Your task to perform on an android device: What's the weather going to be tomorrow? Image 0: 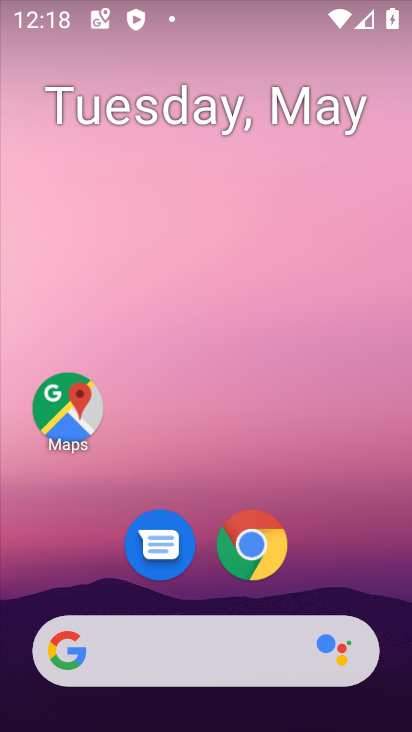
Step 0: click (150, 661)
Your task to perform on an android device: What's the weather going to be tomorrow? Image 1: 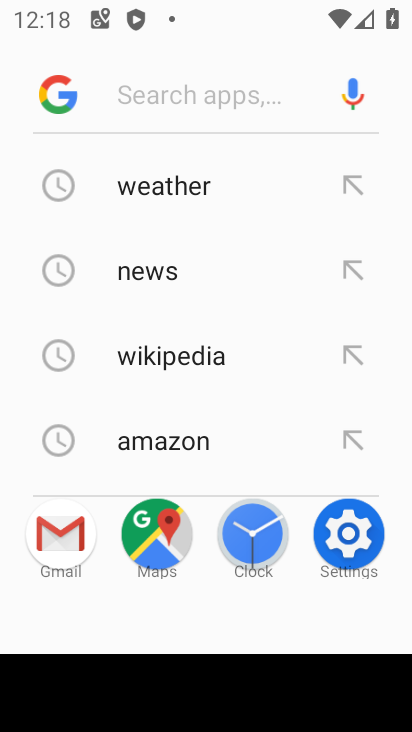
Step 1: click (194, 202)
Your task to perform on an android device: What's the weather going to be tomorrow? Image 2: 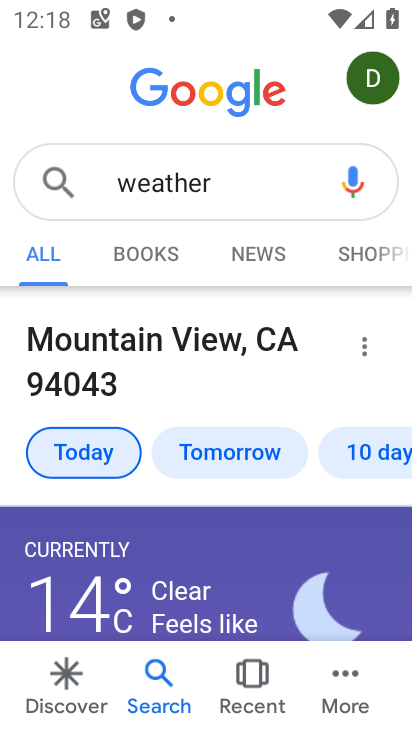
Step 2: click (204, 443)
Your task to perform on an android device: What's the weather going to be tomorrow? Image 3: 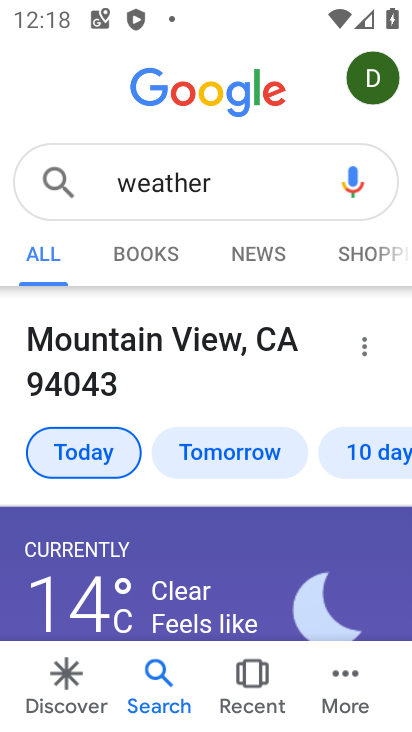
Step 3: click (204, 443)
Your task to perform on an android device: What's the weather going to be tomorrow? Image 4: 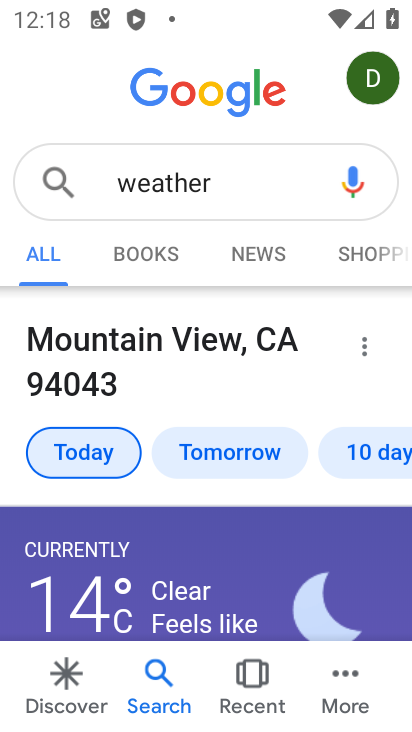
Step 4: click (263, 451)
Your task to perform on an android device: What's the weather going to be tomorrow? Image 5: 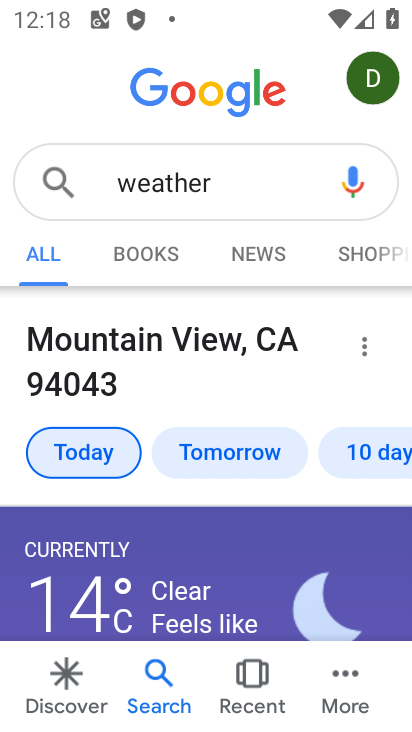
Step 5: click (253, 473)
Your task to perform on an android device: What's the weather going to be tomorrow? Image 6: 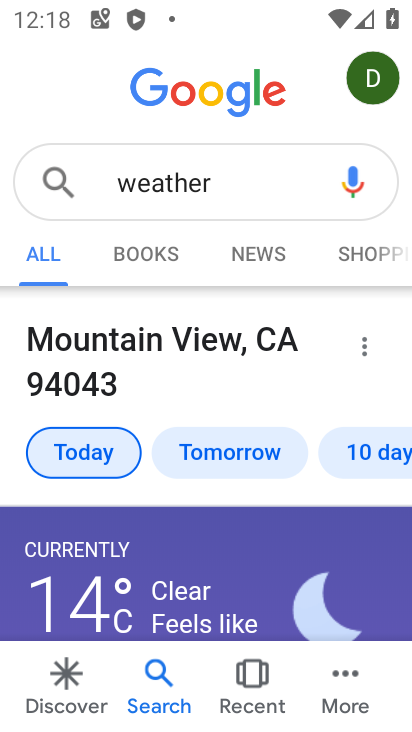
Step 6: click (253, 473)
Your task to perform on an android device: What's the weather going to be tomorrow? Image 7: 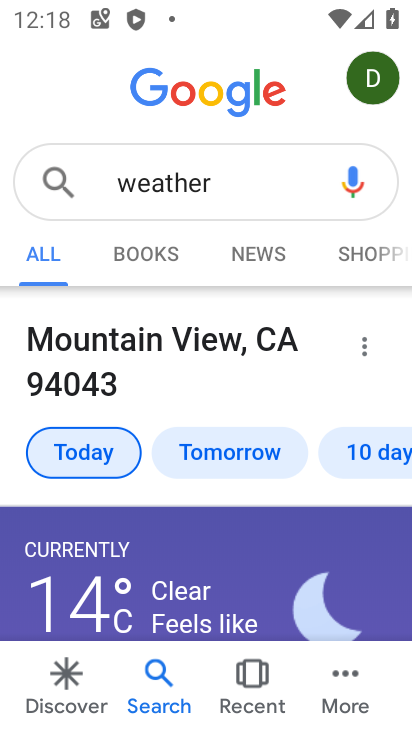
Step 7: click (253, 473)
Your task to perform on an android device: What's the weather going to be tomorrow? Image 8: 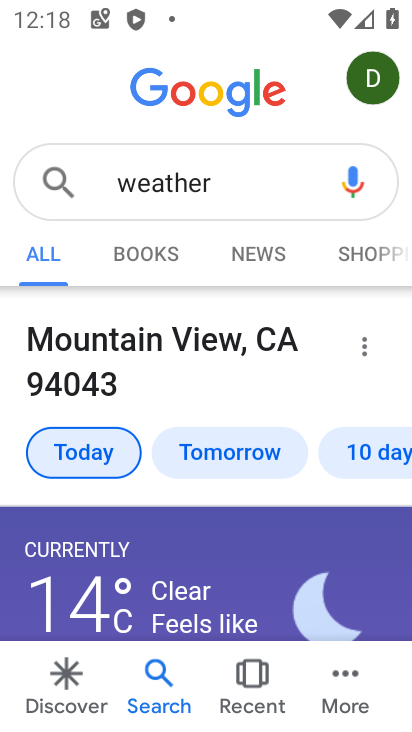
Step 8: drag from (211, 525) to (274, 209)
Your task to perform on an android device: What's the weather going to be tomorrow? Image 9: 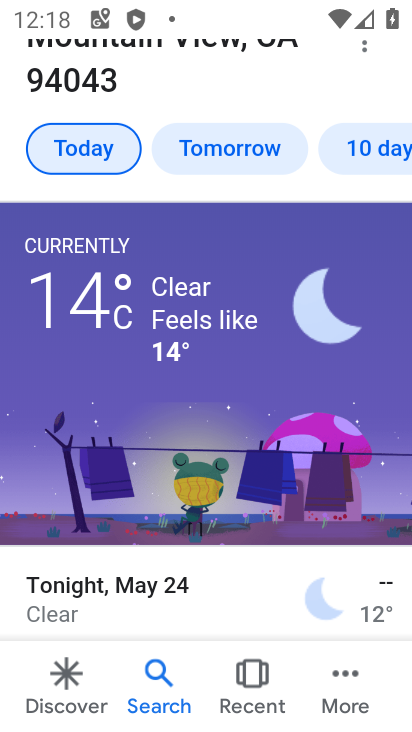
Step 9: drag from (181, 483) to (279, 68)
Your task to perform on an android device: What's the weather going to be tomorrow? Image 10: 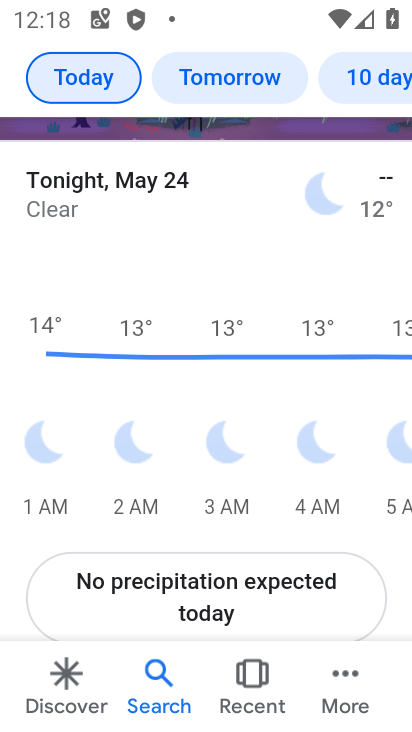
Step 10: drag from (146, 532) to (215, 207)
Your task to perform on an android device: What's the weather going to be tomorrow? Image 11: 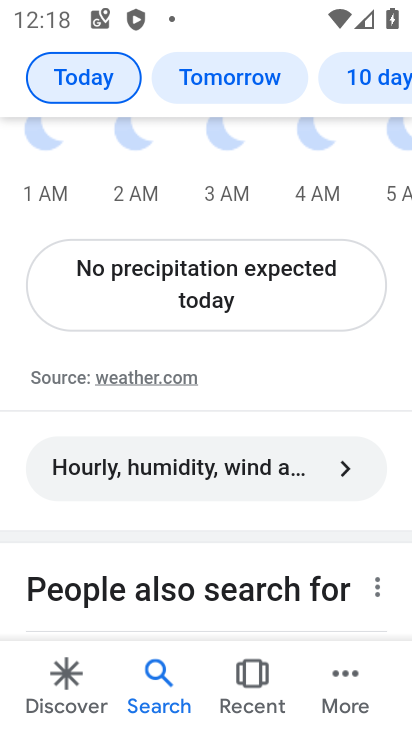
Step 11: click (150, 378)
Your task to perform on an android device: What's the weather going to be tomorrow? Image 12: 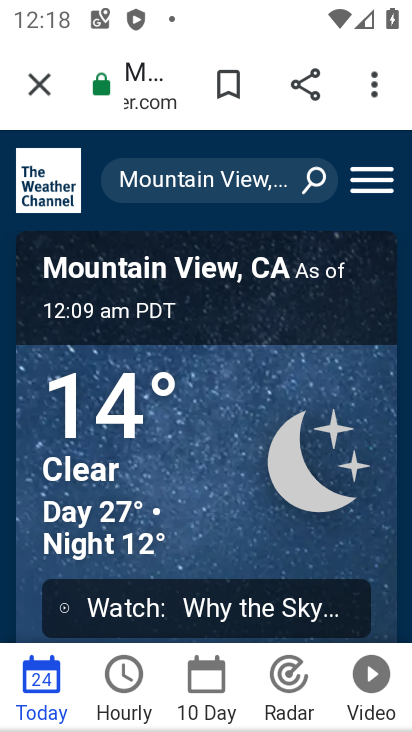
Step 12: task complete